Your task to perform on an android device: What's the weather? Image 0: 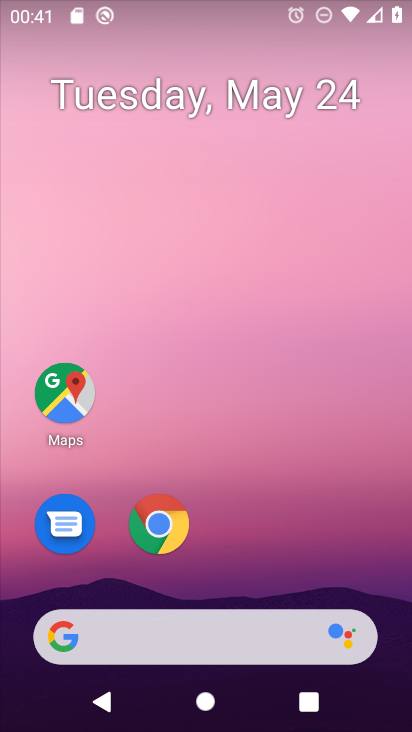
Step 0: drag from (224, 578) to (226, 139)
Your task to perform on an android device: What's the weather? Image 1: 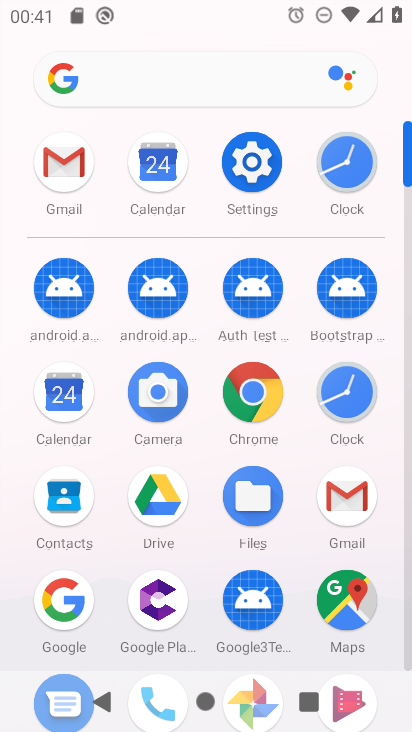
Step 1: click (53, 577)
Your task to perform on an android device: What's the weather? Image 2: 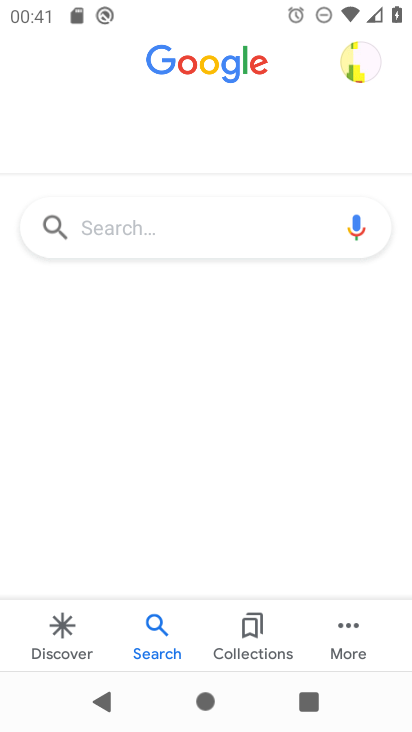
Step 2: click (188, 238)
Your task to perform on an android device: What's the weather? Image 3: 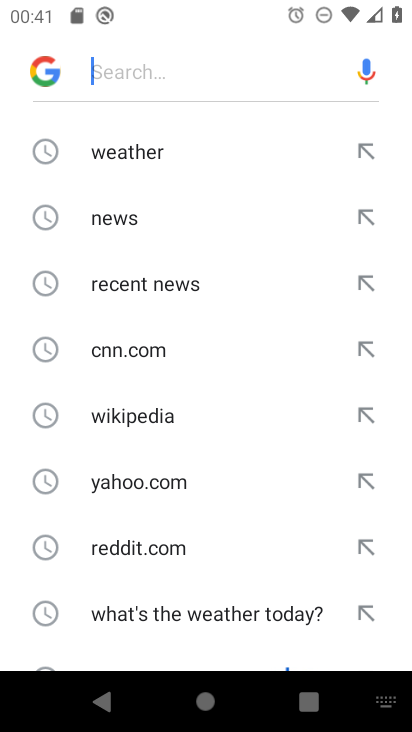
Step 3: click (152, 150)
Your task to perform on an android device: What's the weather? Image 4: 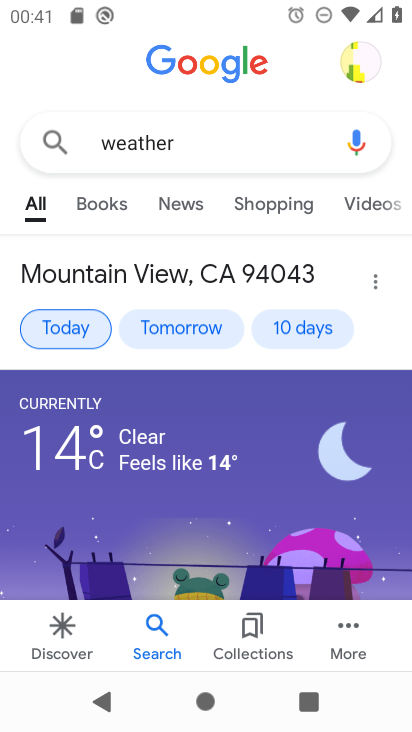
Step 4: task complete